Your task to perform on an android device: Open Google Chrome and click the shortcut for Amazon.com Image 0: 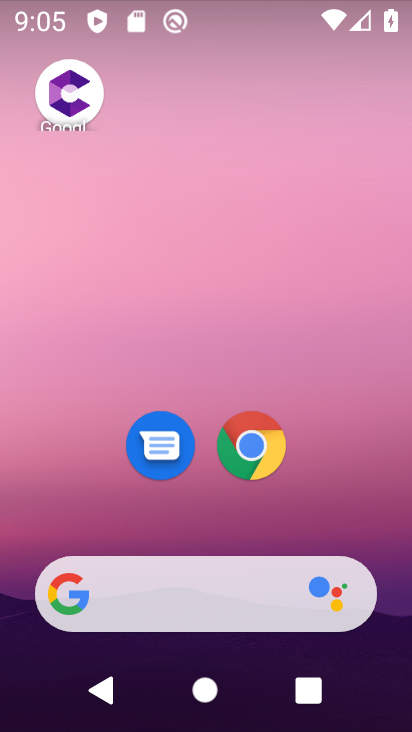
Step 0: drag from (405, 605) to (294, 29)
Your task to perform on an android device: Open Google Chrome and click the shortcut for Amazon.com Image 1: 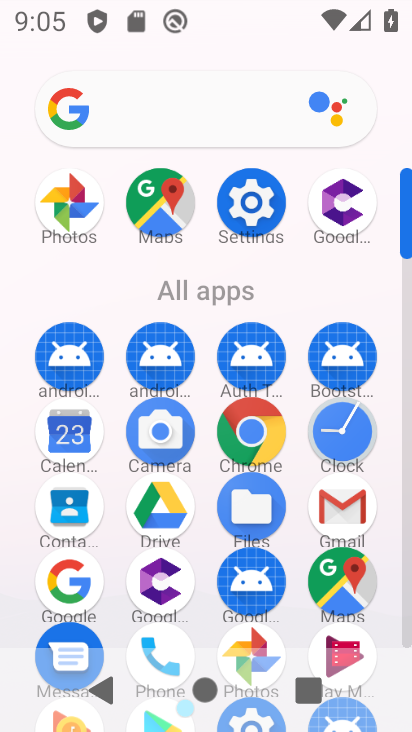
Step 1: click (250, 434)
Your task to perform on an android device: Open Google Chrome and click the shortcut for Amazon.com Image 2: 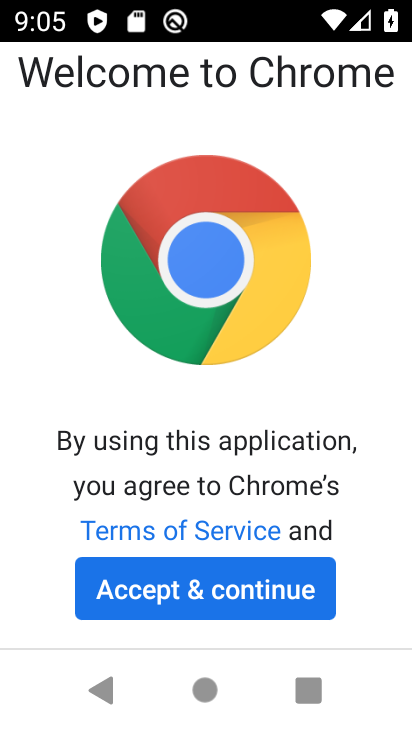
Step 2: click (193, 575)
Your task to perform on an android device: Open Google Chrome and click the shortcut for Amazon.com Image 3: 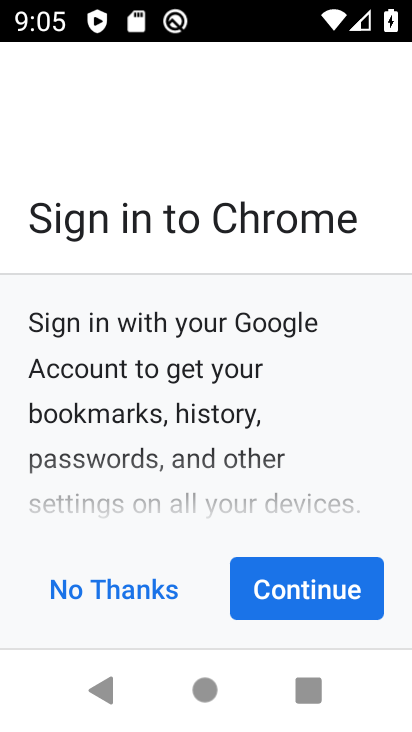
Step 3: click (284, 580)
Your task to perform on an android device: Open Google Chrome and click the shortcut for Amazon.com Image 4: 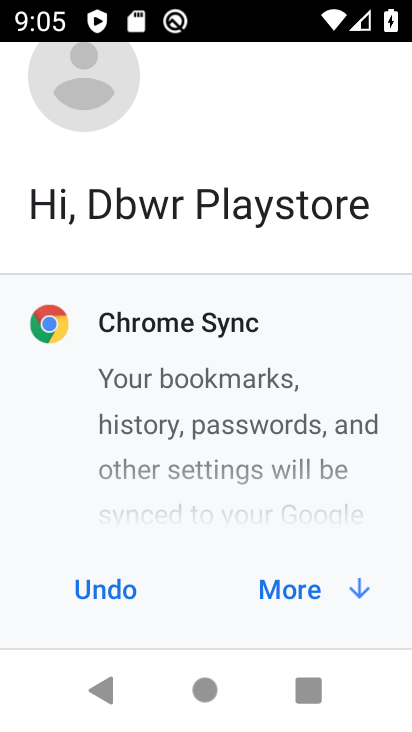
Step 4: click (284, 580)
Your task to perform on an android device: Open Google Chrome and click the shortcut for Amazon.com Image 5: 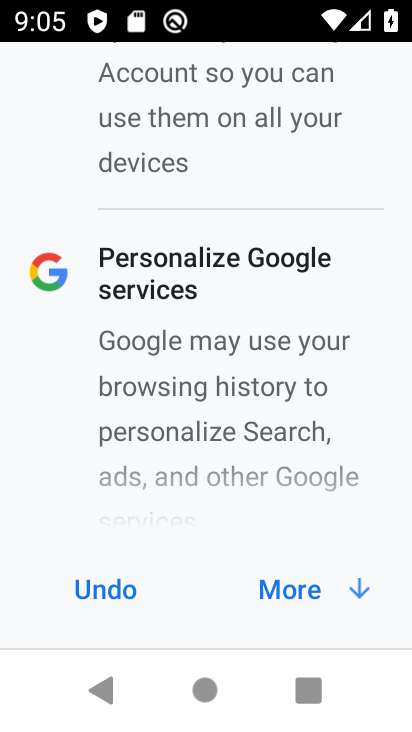
Step 5: click (284, 580)
Your task to perform on an android device: Open Google Chrome and click the shortcut for Amazon.com Image 6: 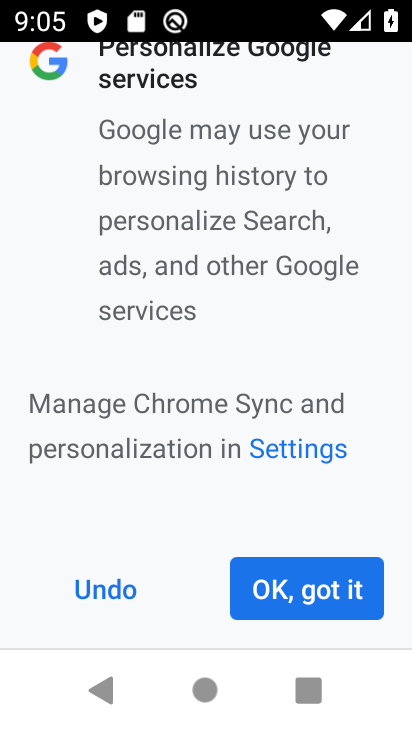
Step 6: click (284, 580)
Your task to perform on an android device: Open Google Chrome and click the shortcut for Amazon.com Image 7: 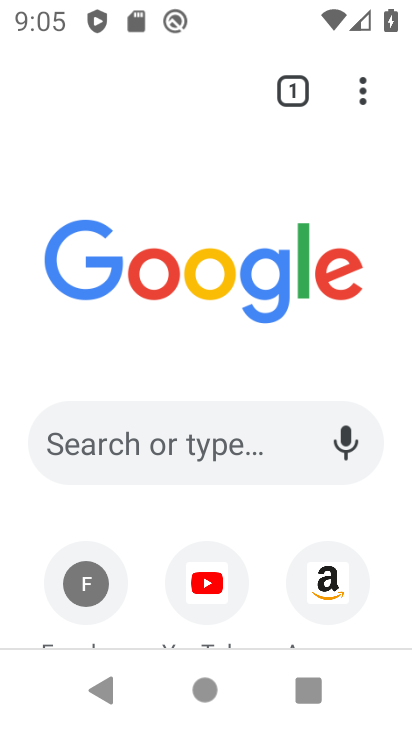
Step 7: click (294, 583)
Your task to perform on an android device: Open Google Chrome and click the shortcut for Amazon.com Image 8: 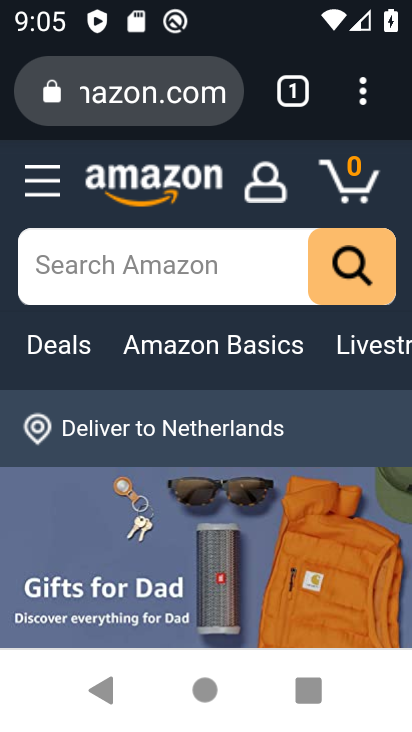
Step 8: task complete